Your task to perform on an android device: change the clock display to analog Image 0: 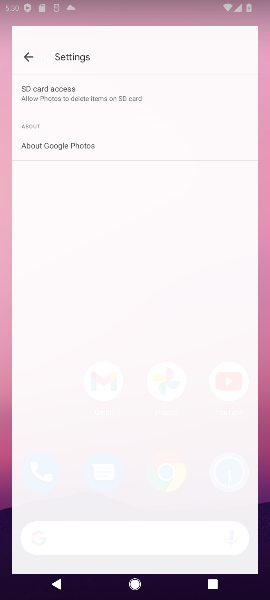
Step 0: press home button
Your task to perform on an android device: change the clock display to analog Image 1: 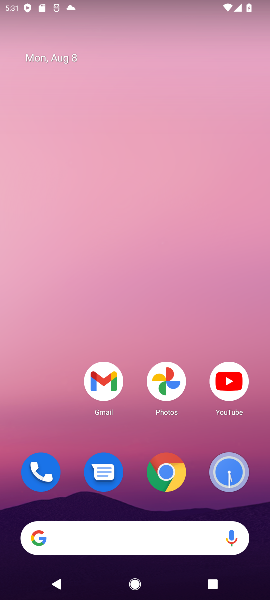
Step 1: drag from (134, 518) to (125, 171)
Your task to perform on an android device: change the clock display to analog Image 2: 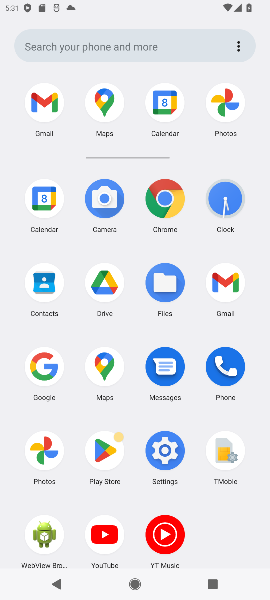
Step 2: click (225, 198)
Your task to perform on an android device: change the clock display to analog Image 3: 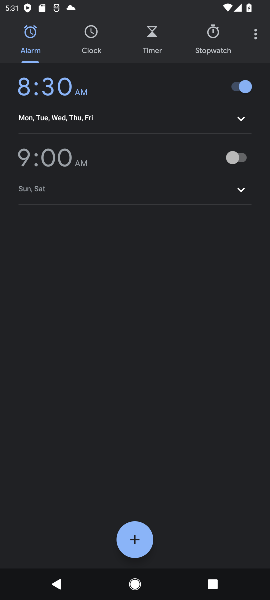
Step 3: click (261, 35)
Your task to perform on an android device: change the clock display to analog Image 4: 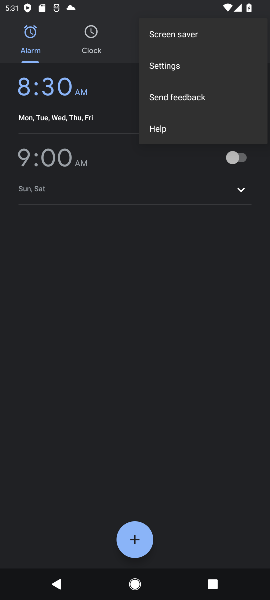
Step 4: click (156, 67)
Your task to perform on an android device: change the clock display to analog Image 5: 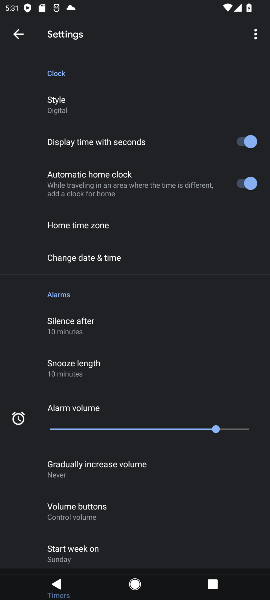
Step 5: click (61, 105)
Your task to perform on an android device: change the clock display to analog Image 6: 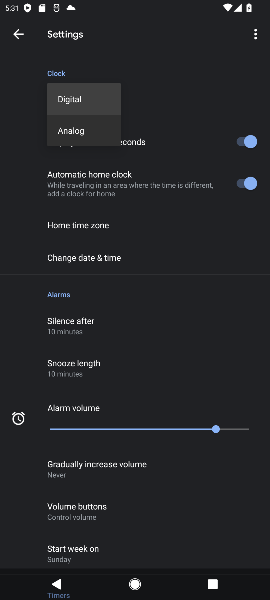
Step 6: click (67, 135)
Your task to perform on an android device: change the clock display to analog Image 7: 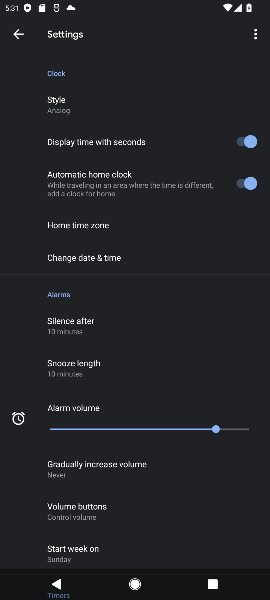
Step 7: task complete